Your task to perform on an android device: Do I have any events today? Image 0: 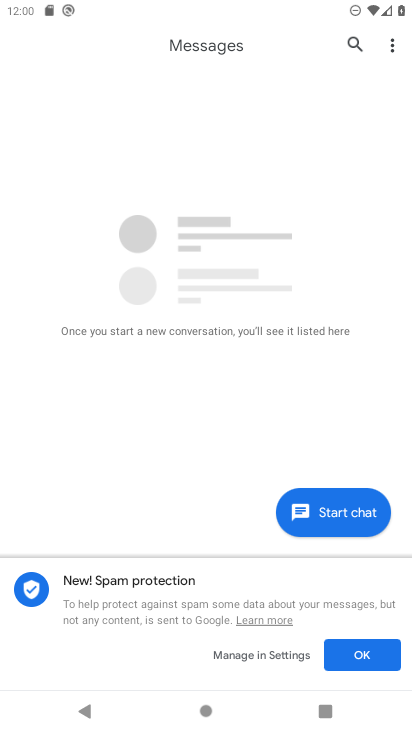
Step 0: press home button
Your task to perform on an android device: Do I have any events today? Image 1: 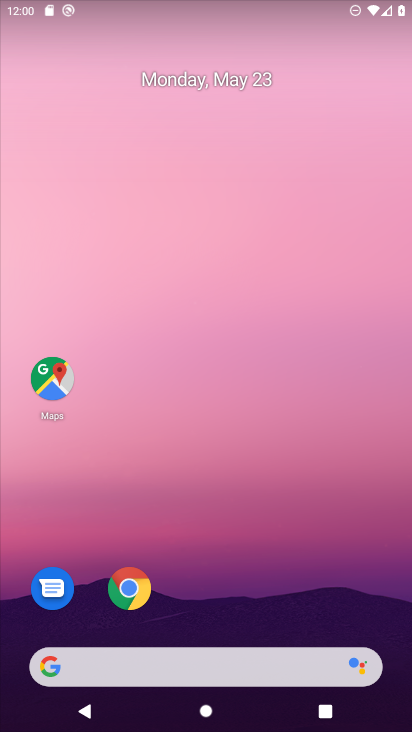
Step 1: drag from (245, 697) to (273, 195)
Your task to perform on an android device: Do I have any events today? Image 2: 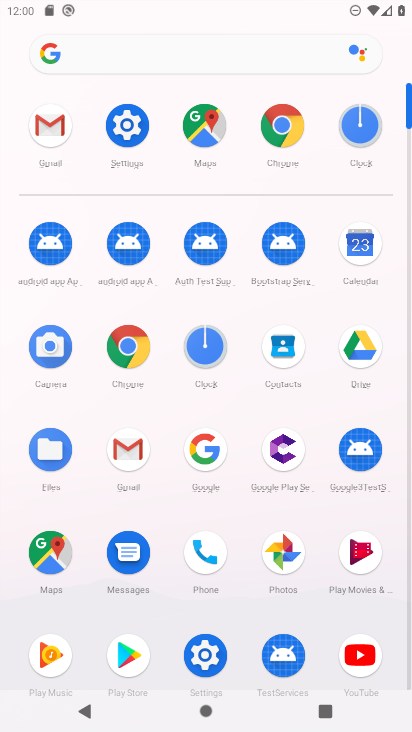
Step 2: click (352, 252)
Your task to perform on an android device: Do I have any events today? Image 3: 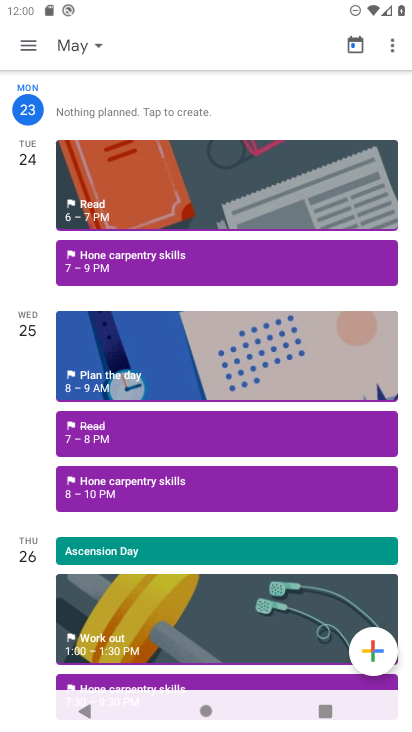
Step 3: click (25, 46)
Your task to perform on an android device: Do I have any events today? Image 4: 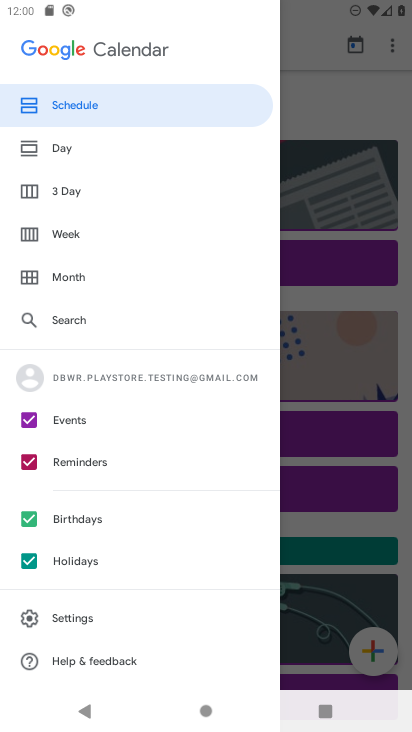
Step 4: click (96, 111)
Your task to perform on an android device: Do I have any events today? Image 5: 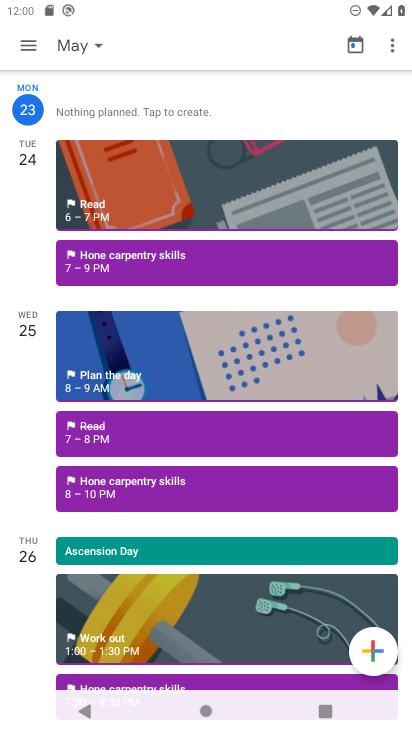
Step 5: task complete